Your task to perform on an android device: delete the emails in spam in the gmail app Image 0: 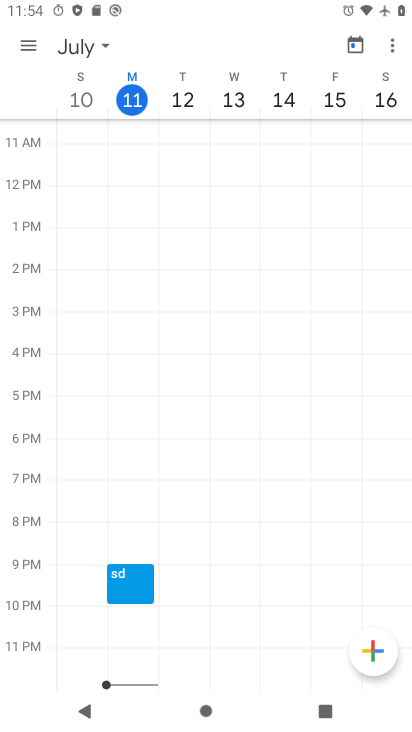
Step 0: press home button
Your task to perform on an android device: delete the emails in spam in the gmail app Image 1: 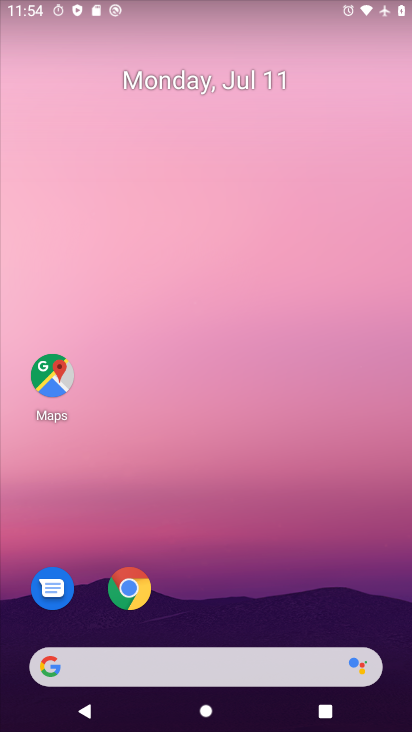
Step 1: drag from (181, 638) to (311, 118)
Your task to perform on an android device: delete the emails in spam in the gmail app Image 2: 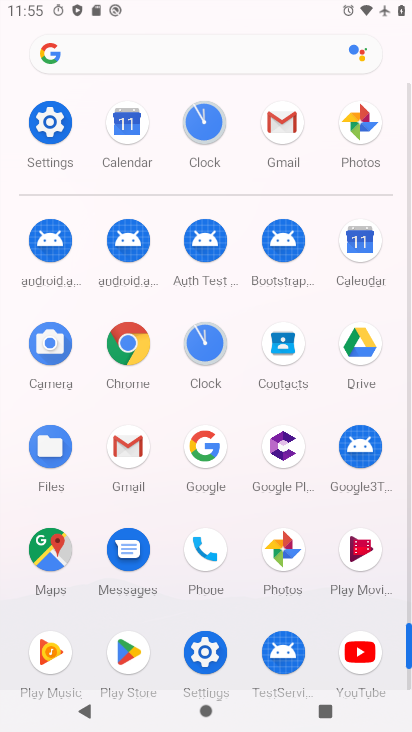
Step 2: click (281, 130)
Your task to perform on an android device: delete the emails in spam in the gmail app Image 3: 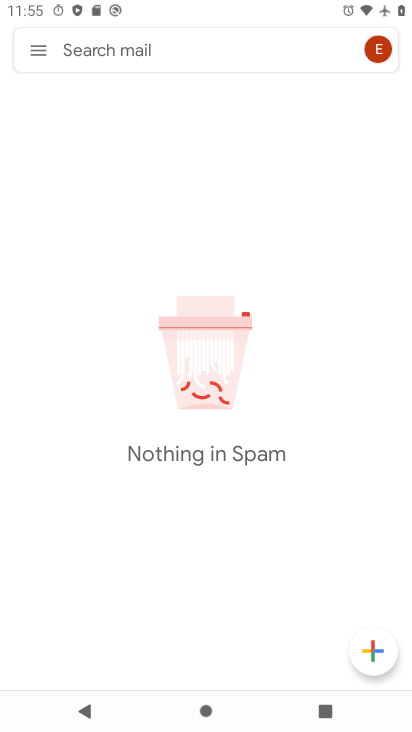
Step 3: task complete